Your task to perform on an android device: Search for sushi restaurants on Maps Image 0: 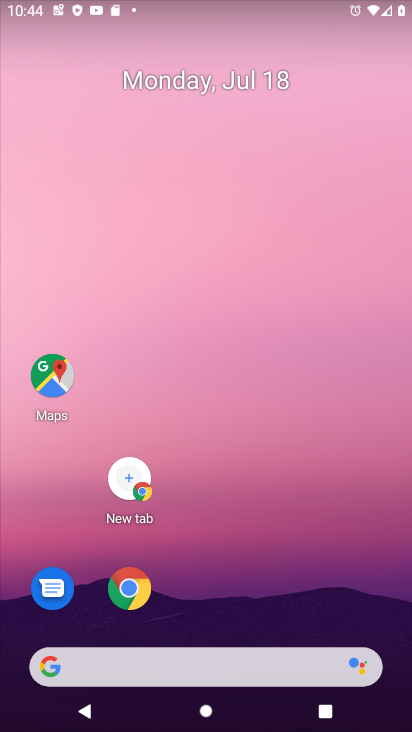
Step 0: click (48, 350)
Your task to perform on an android device: Search for sushi restaurants on Maps Image 1: 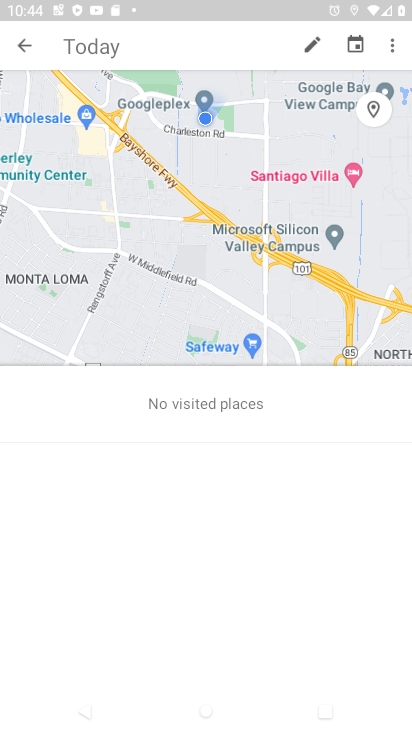
Step 1: click (19, 44)
Your task to perform on an android device: Search for sushi restaurants on Maps Image 2: 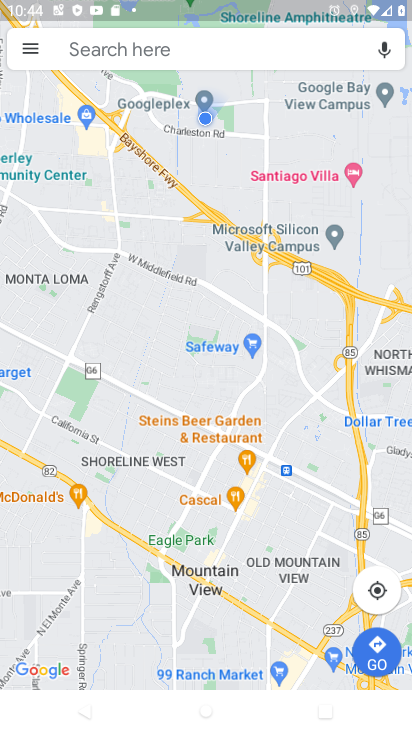
Step 2: click (187, 53)
Your task to perform on an android device: Search for sushi restaurants on Maps Image 3: 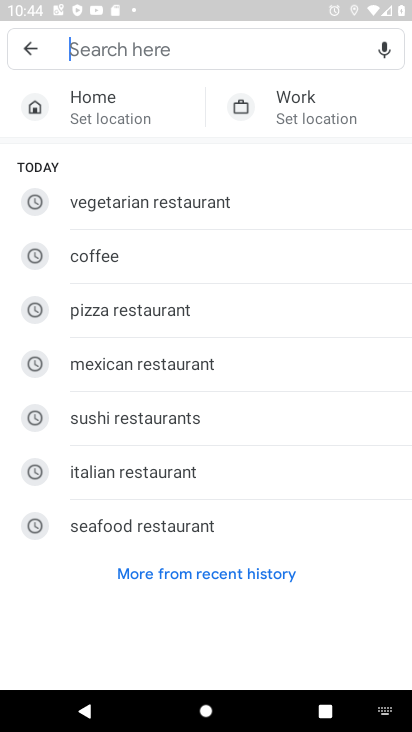
Step 3: type "sushi restaurant"
Your task to perform on an android device: Search for sushi restaurants on Maps Image 4: 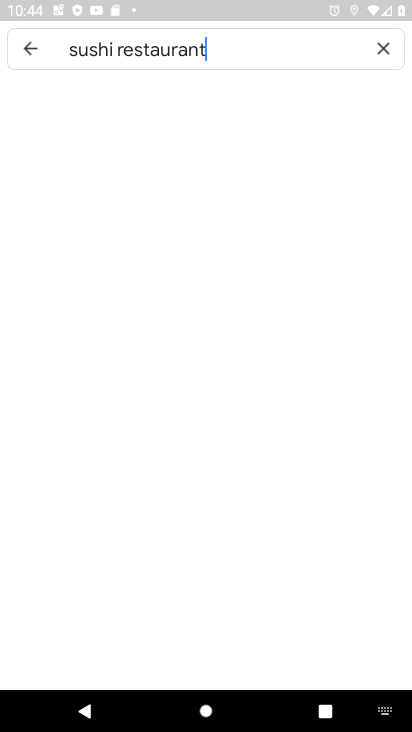
Step 4: type ""
Your task to perform on an android device: Search for sushi restaurants on Maps Image 5: 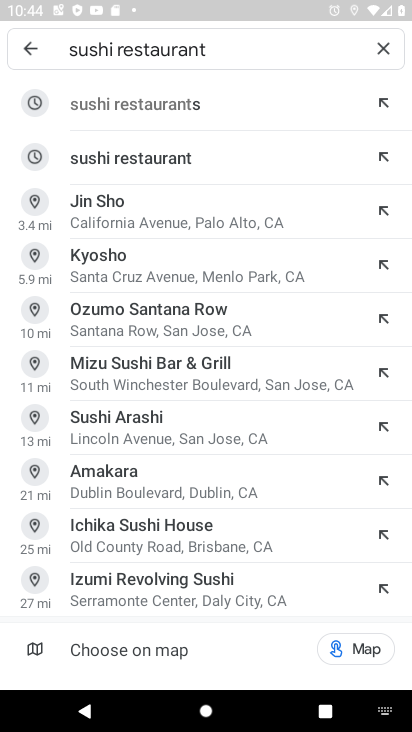
Step 5: click (95, 170)
Your task to perform on an android device: Search for sushi restaurants on Maps Image 6: 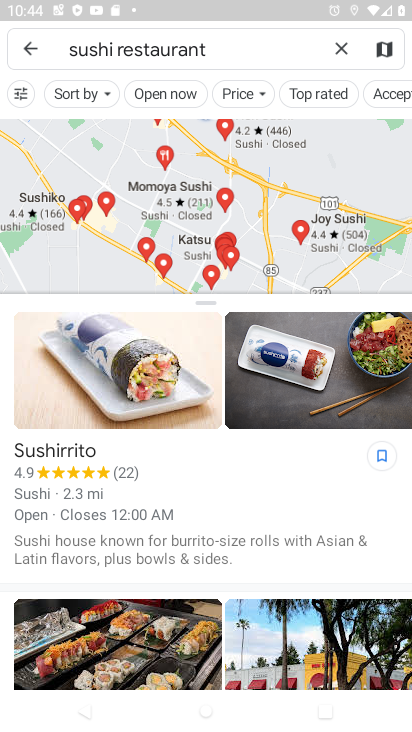
Step 6: task complete